Your task to perform on an android device: Clear all items from cart on ebay.com. Add "duracell triple a" to the cart on ebay.com Image 0: 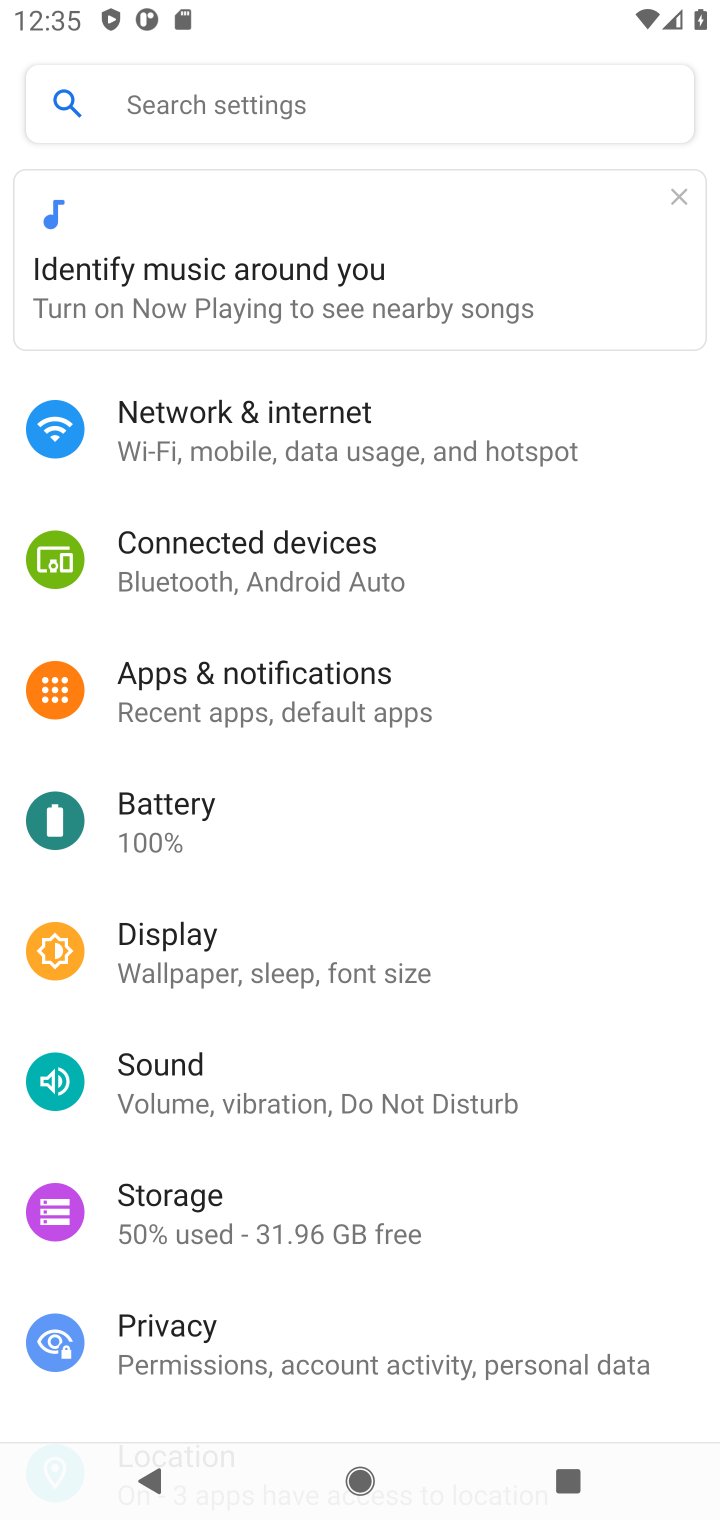
Step 0: press home button
Your task to perform on an android device: Clear all items from cart on ebay.com. Add "duracell triple a" to the cart on ebay.com Image 1: 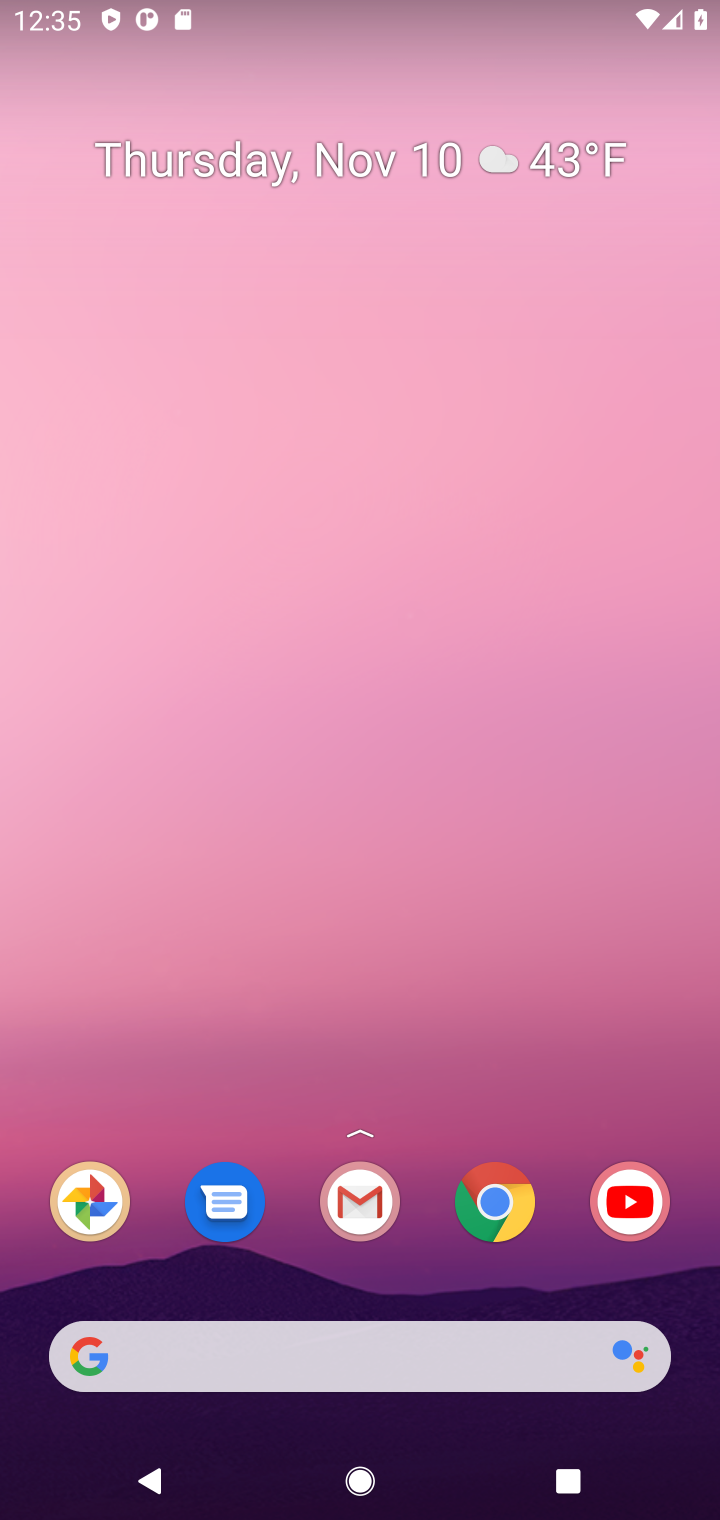
Step 1: click (491, 1203)
Your task to perform on an android device: Clear all items from cart on ebay.com. Add "duracell triple a" to the cart on ebay.com Image 2: 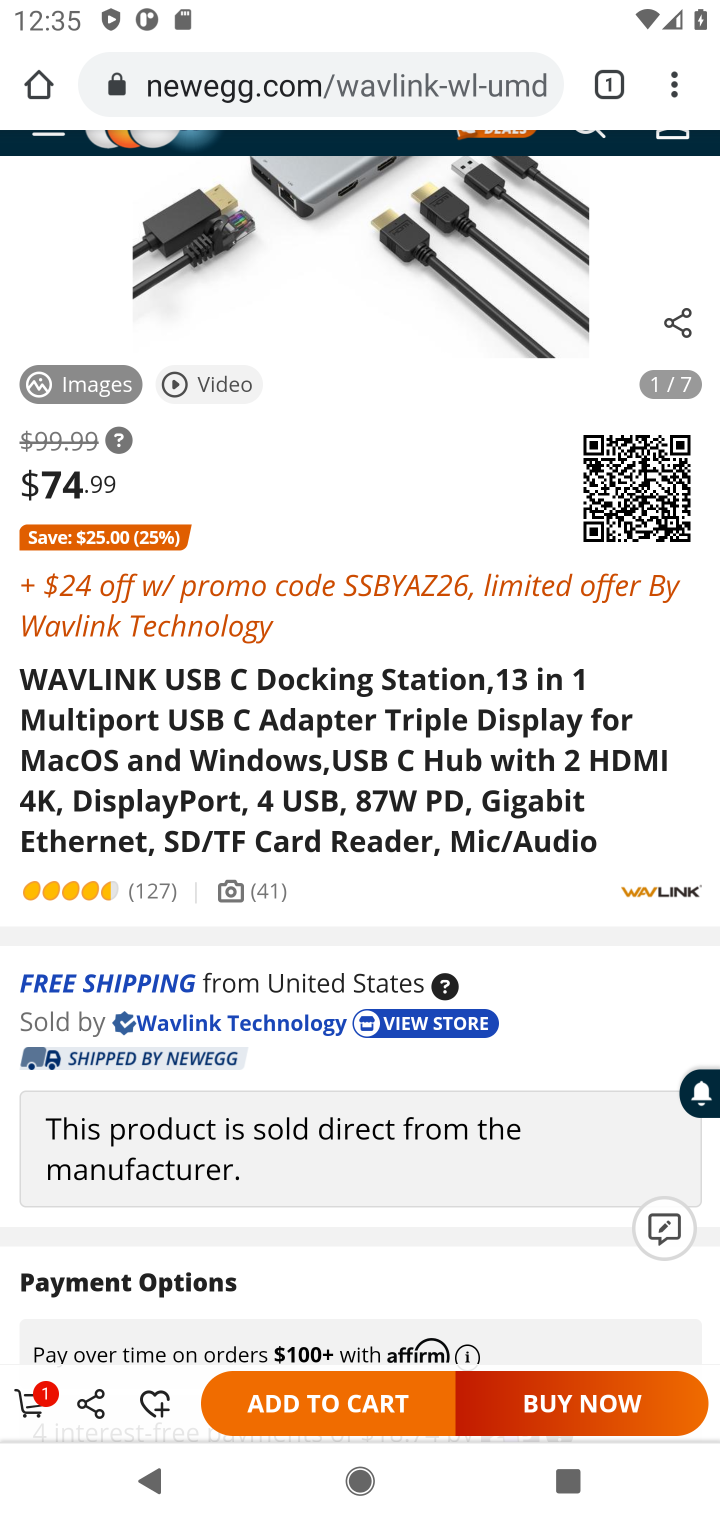
Step 2: click (361, 82)
Your task to perform on an android device: Clear all items from cart on ebay.com. Add "duracell triple a" to the cart on ebay.com Image 3: 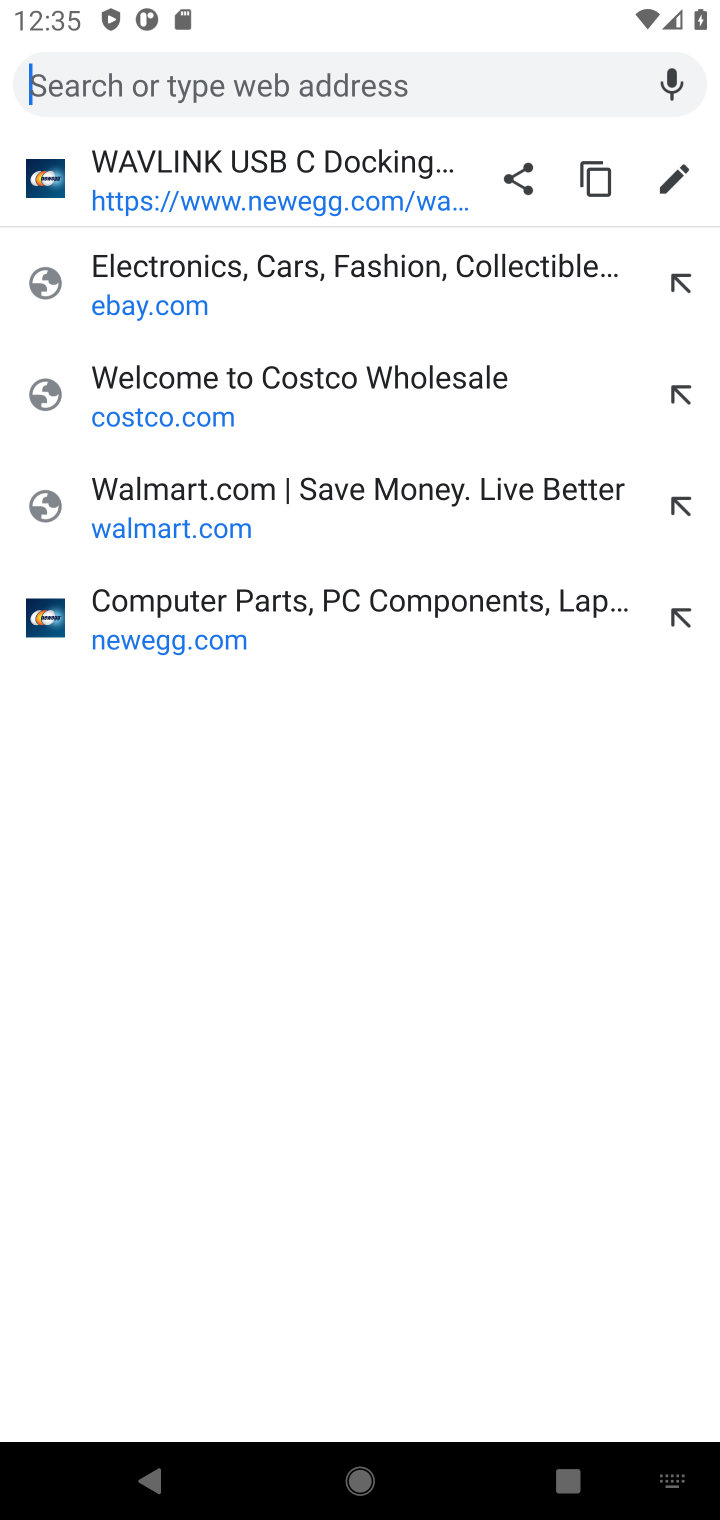
Step 3: click (493, 268)
Your task to perform on an android device: Clear all items from cart on ebay.com. Add "duracell triple a" to the cart on ebay.com Image 4: 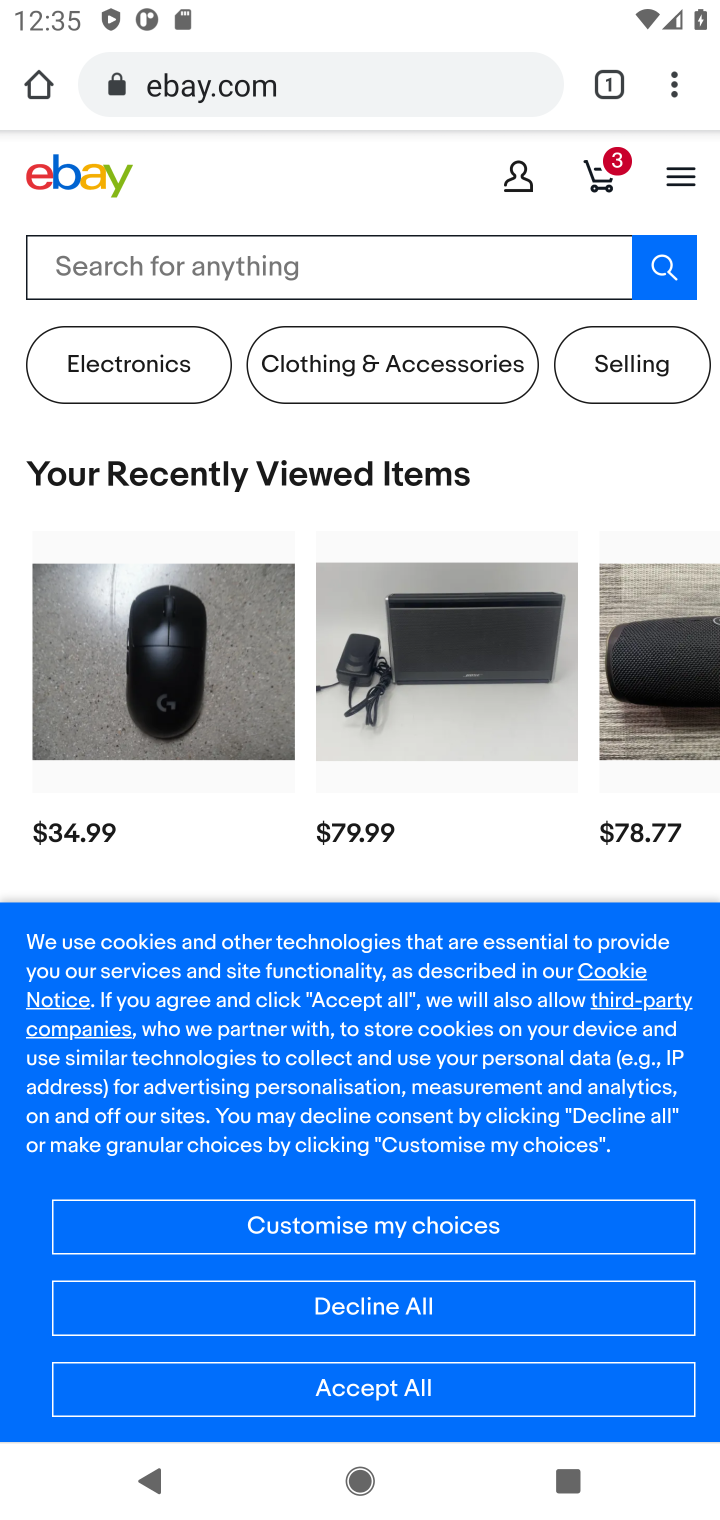
Step 4: click (597, 185)
Your task to perform on an android device: Clear all items from cart on ebay.com. Add "duracell triple a" to the cart on ebay.com Image 5: 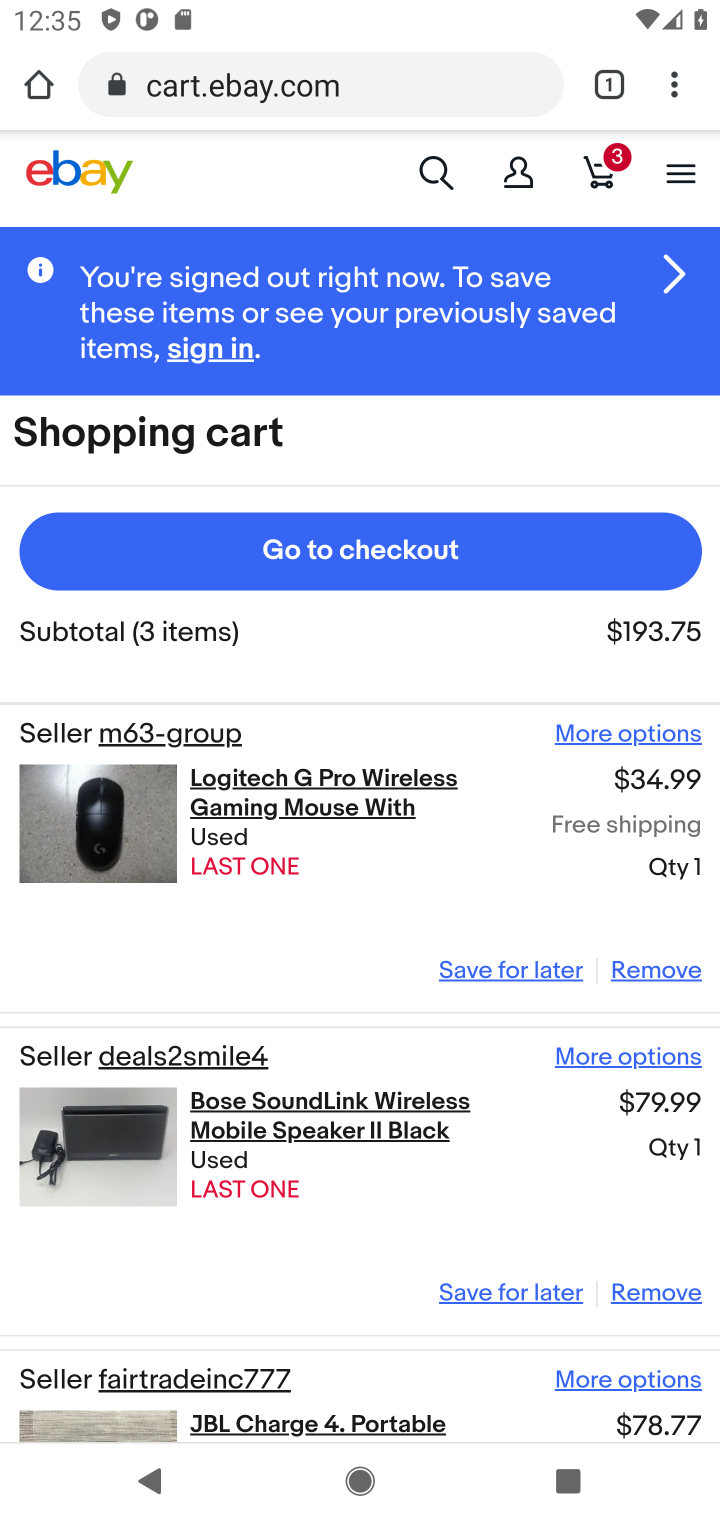
Step 5: click (658, 961)
Your task to perform on an android device: Clear all items from cart on ebay.com. Add "duracell triple a" to the cart on ebay.com Image 6: 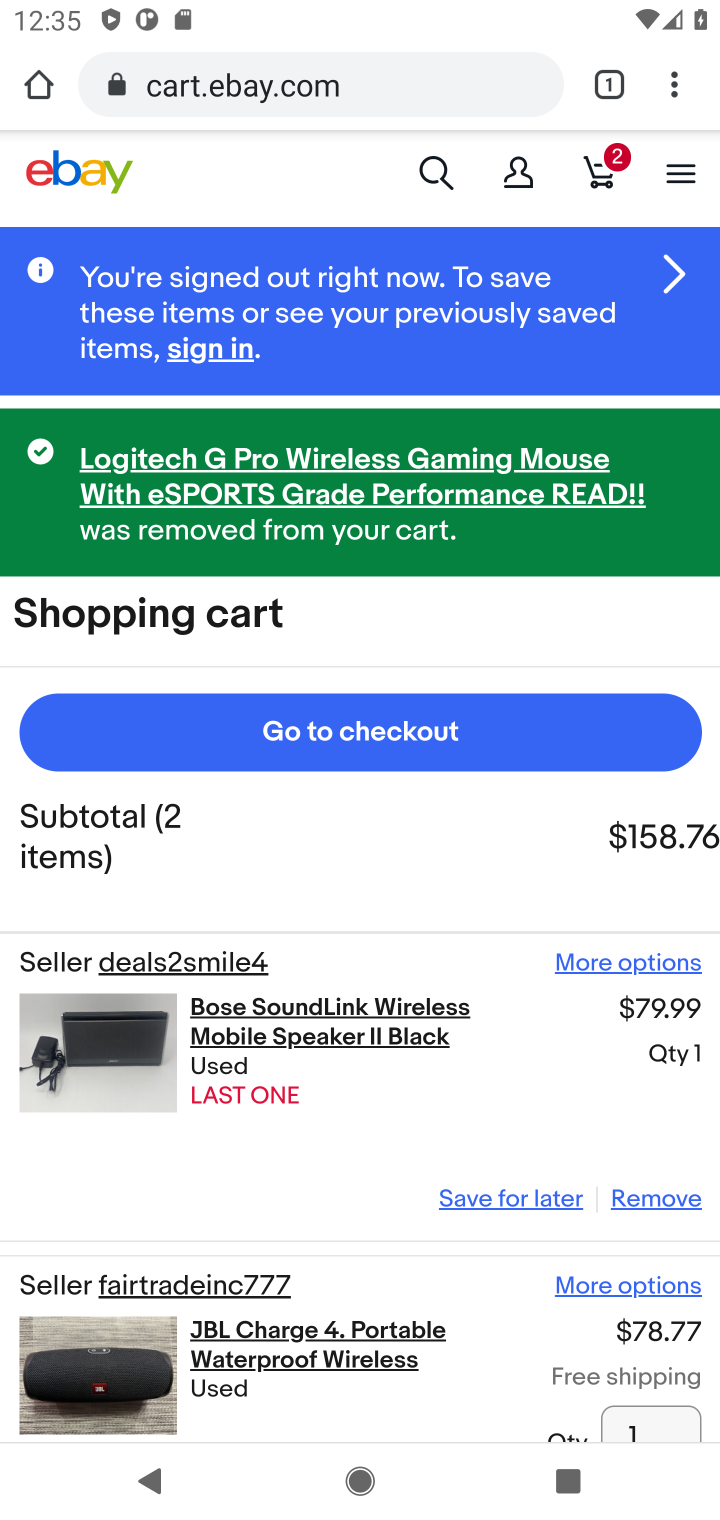
Step 6: click (656, 1199)
Your task to perform on an android device: Clear all items from cart on ebay.com. Add "duracell triple a" to the cart on ebay.com Image 7: 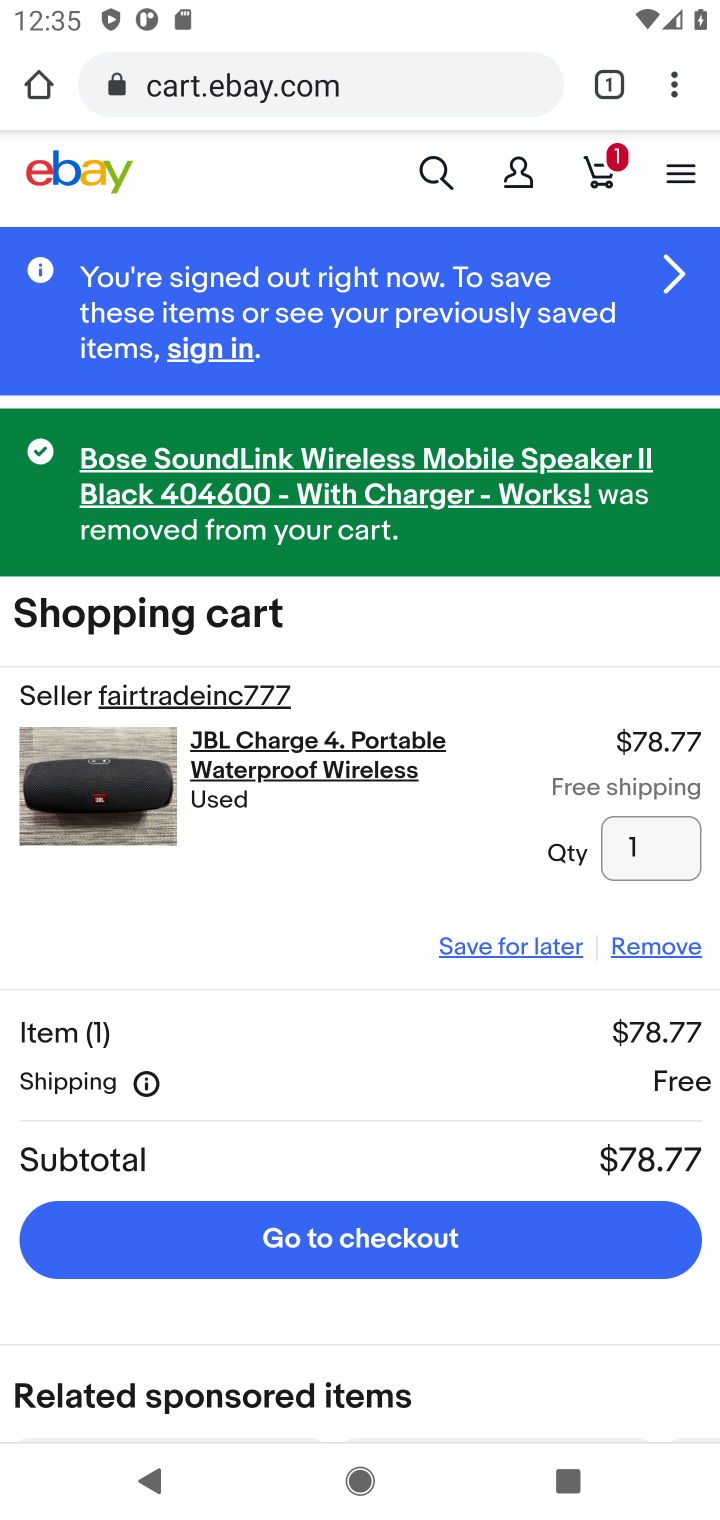
Step 7: click (656, 941)
Your task to perform on an android device: Clear all items from cart on ebay.com. Add "duracell triple a" to the cart on ebay.com Image 8: 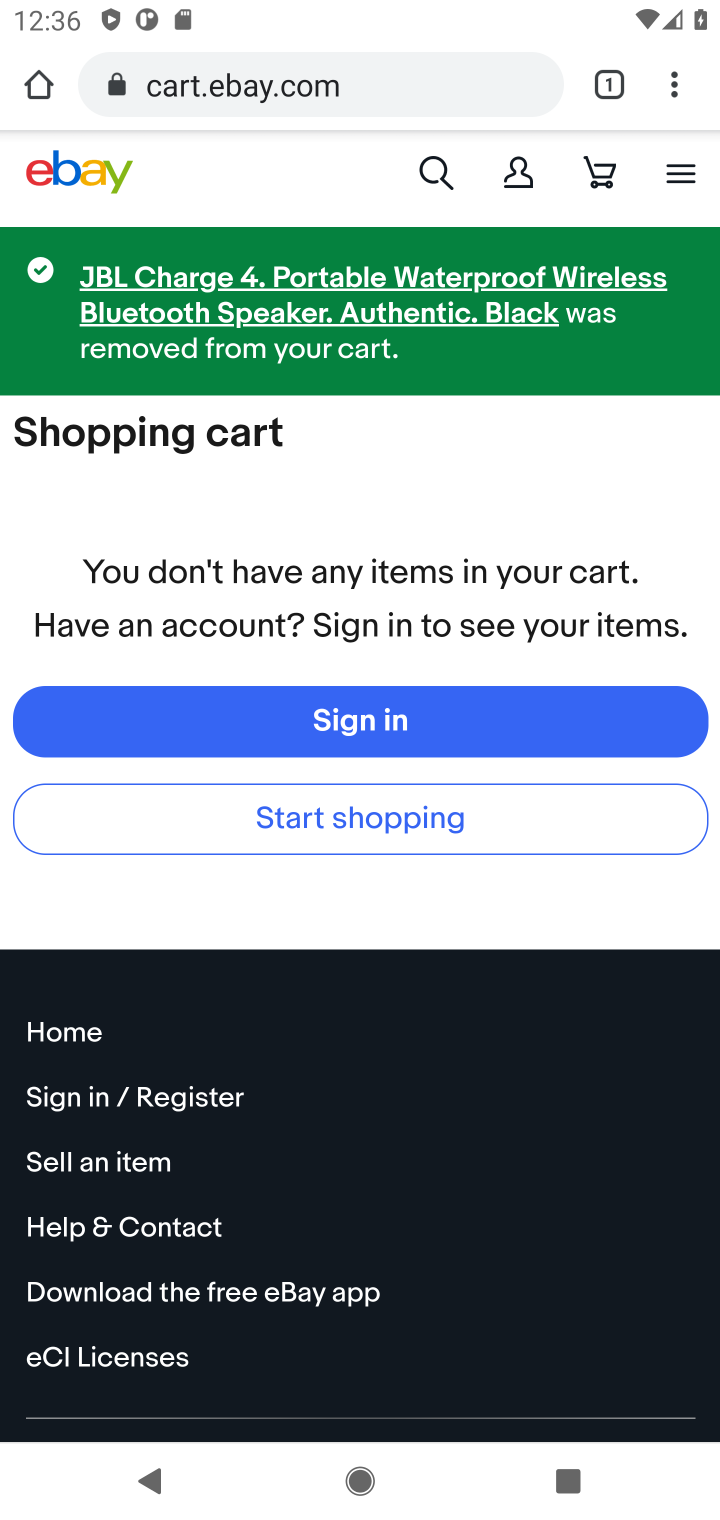
Step 8: click (422, 176)
Your task to perform on an android device: Clear all items from cart on ebay.com. Add "duracell triple a" to the cart on ebay.com Image 9: 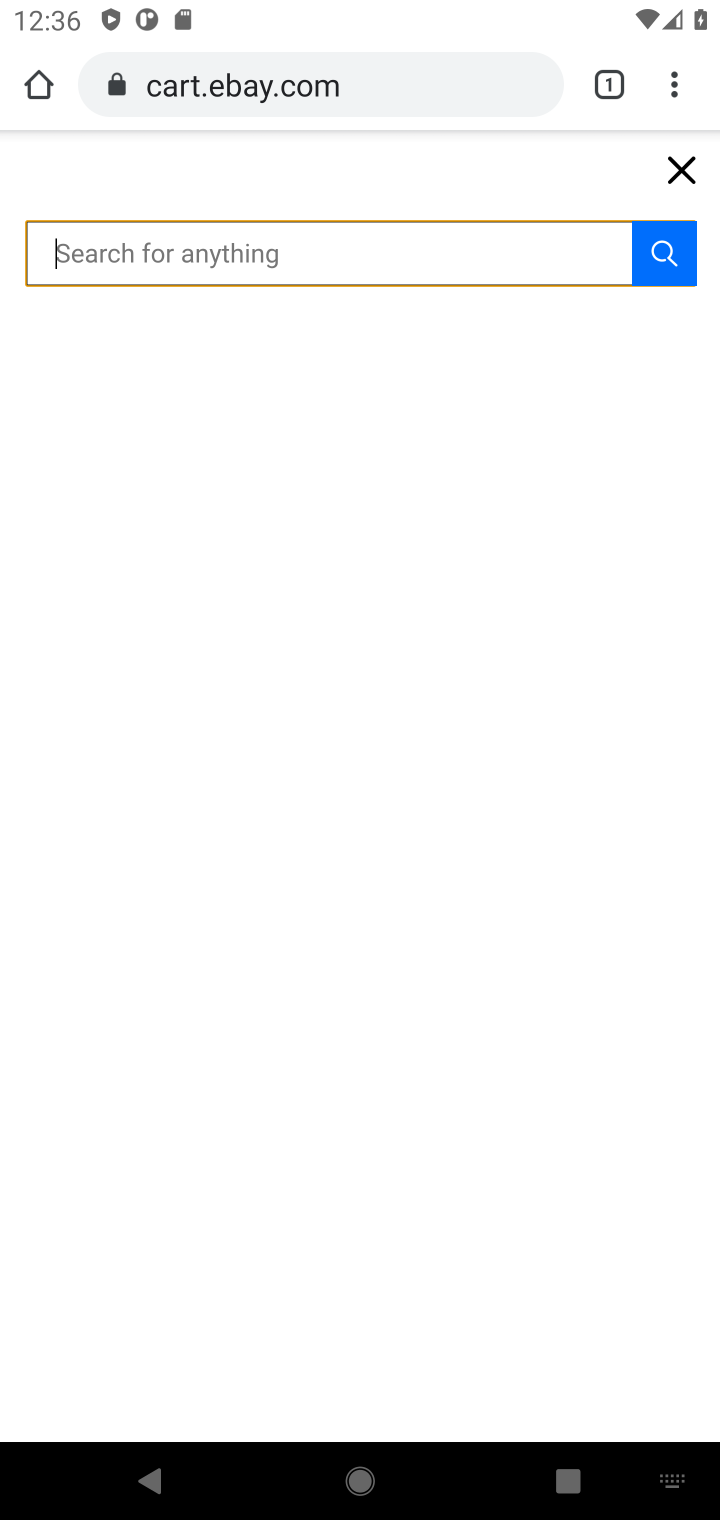
Step 9: type "duracell triple a"
Your task to perform on an android device: Clear all items from cart on ebay.com. Add "duracell triple a" to the cart on ebay.com Image 10: 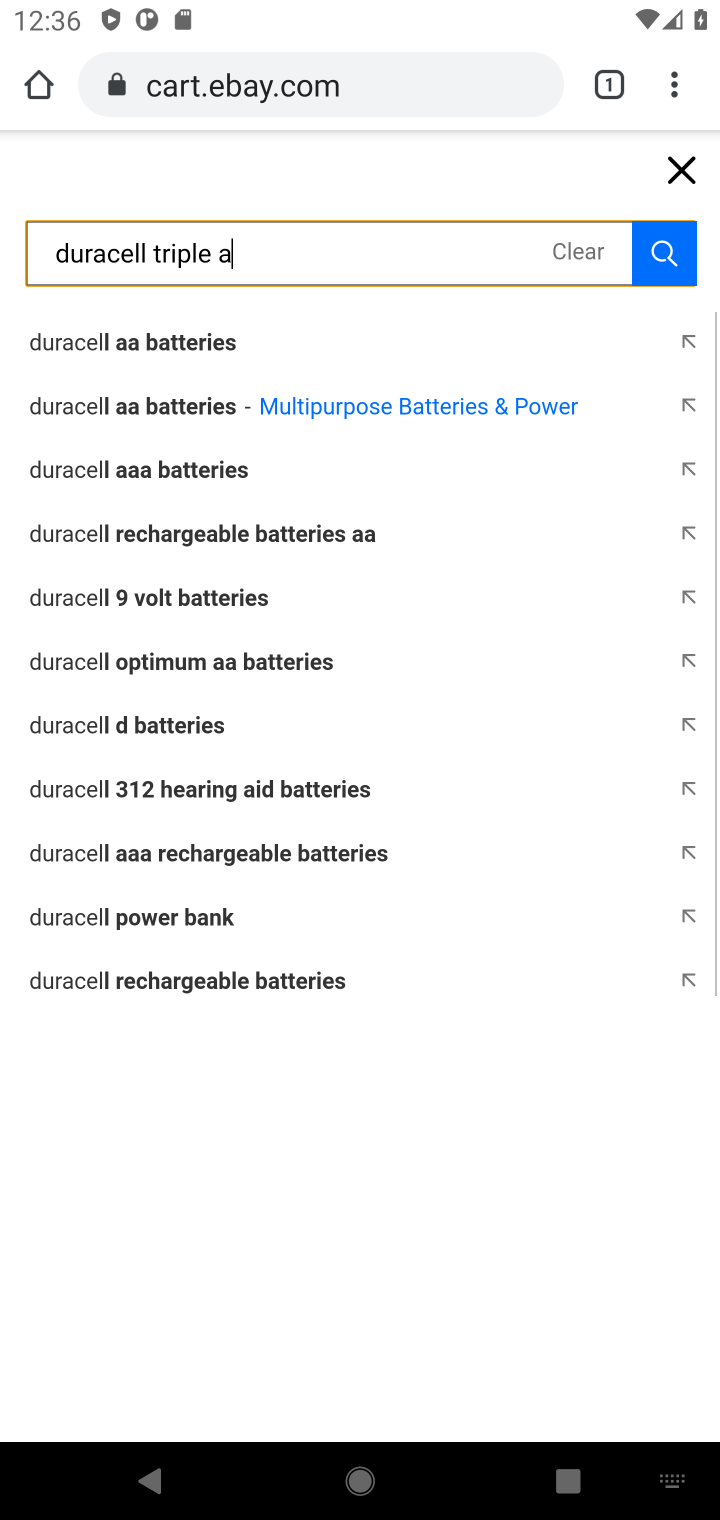
Step 10: press enter
Your task to perform on an android device: Clear all items from cart on ebay.com. Add "duracell triple a" to the cart on ebay.com Image 11: 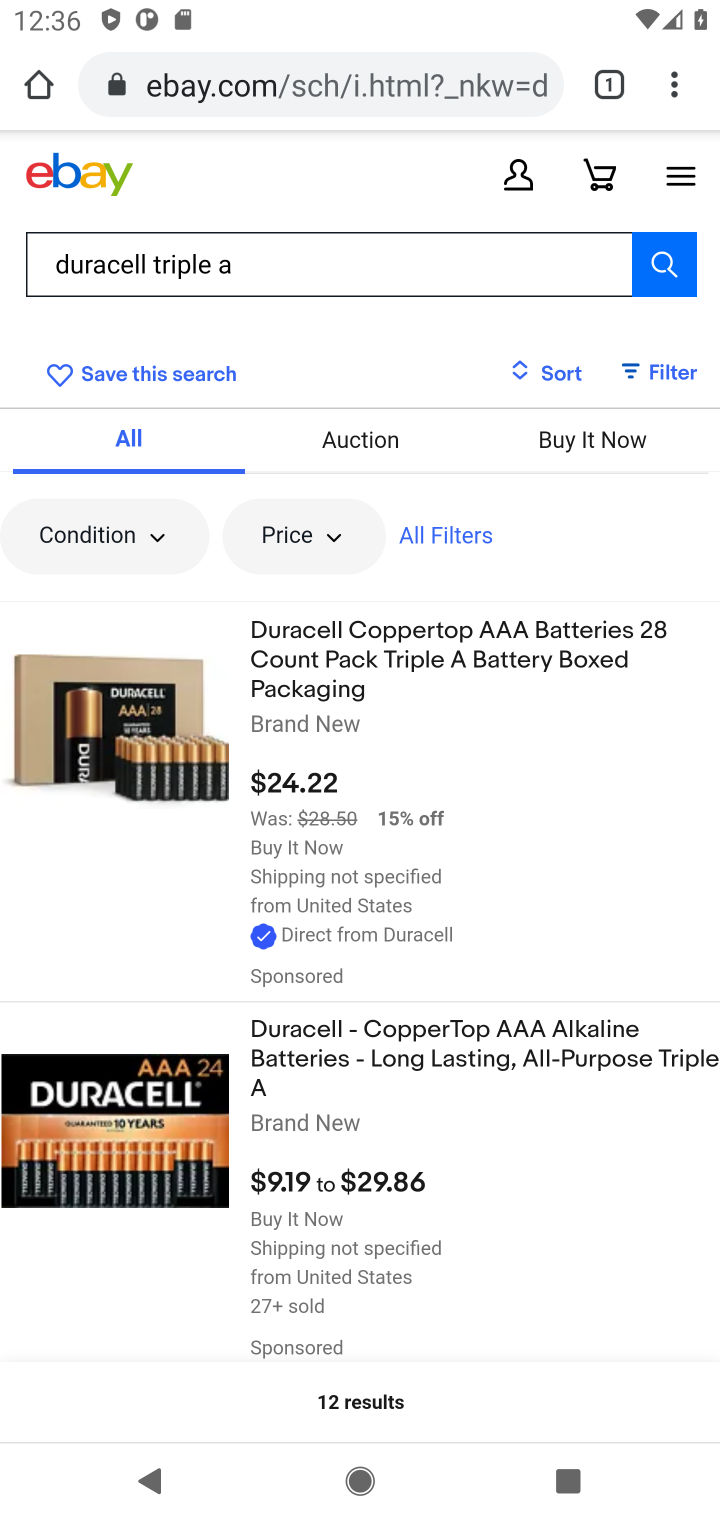
Step 11: click (102, 689)
Your task to perform on an android device: Clear all items from cart on ebay.com. Add "duracell triple a" to the cart on ebay.com Image 12: 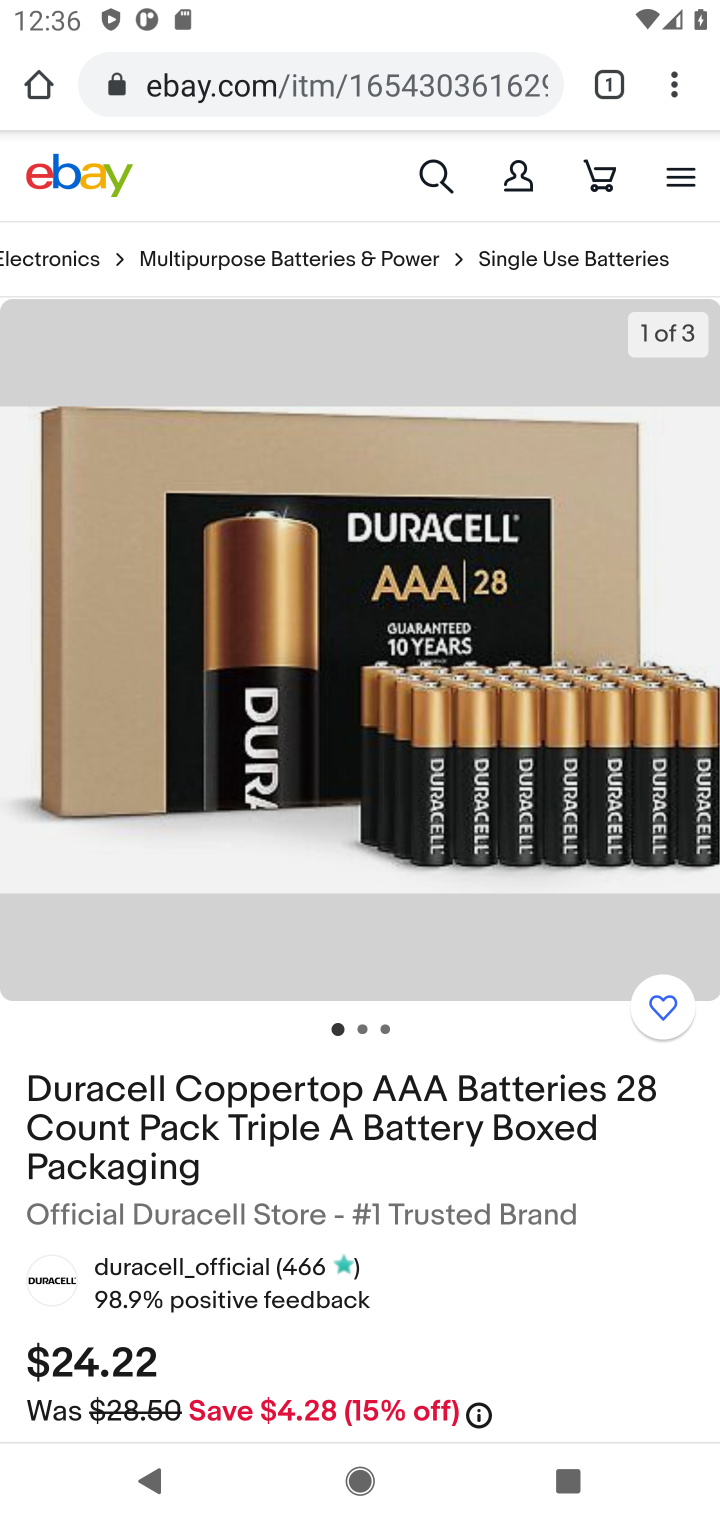
Step 12: drag from (635, 1105) to (561, 691)
Your task to perform on an android device: Clear all items from cart on ebay.com. Add "duracell triple a" to the cart on ebay.com Image 13: 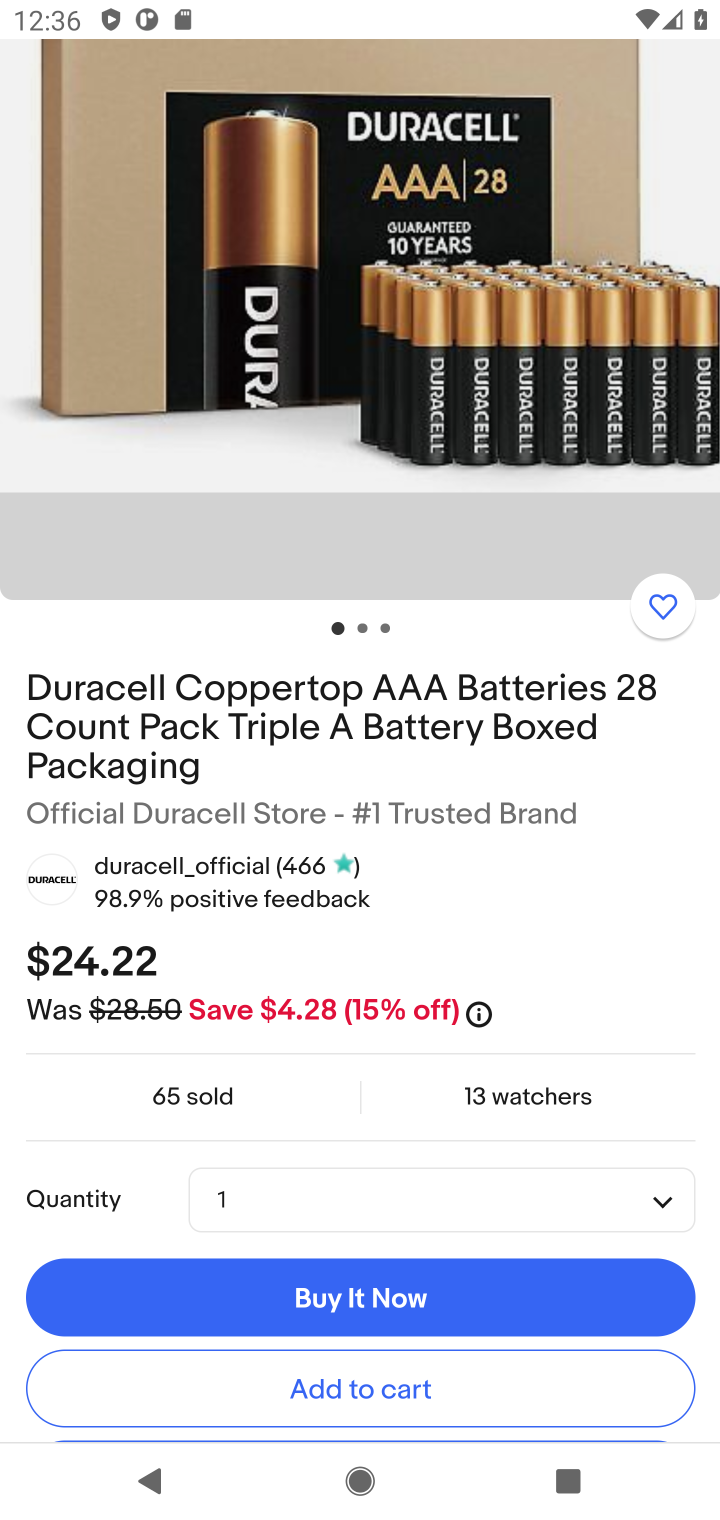
Step 13: click (394, 1380)
Your task to perform on an android device: Clear all items from cart on ebay.com. Add "duracell triple a" to the cart on ebay.com Image 14: 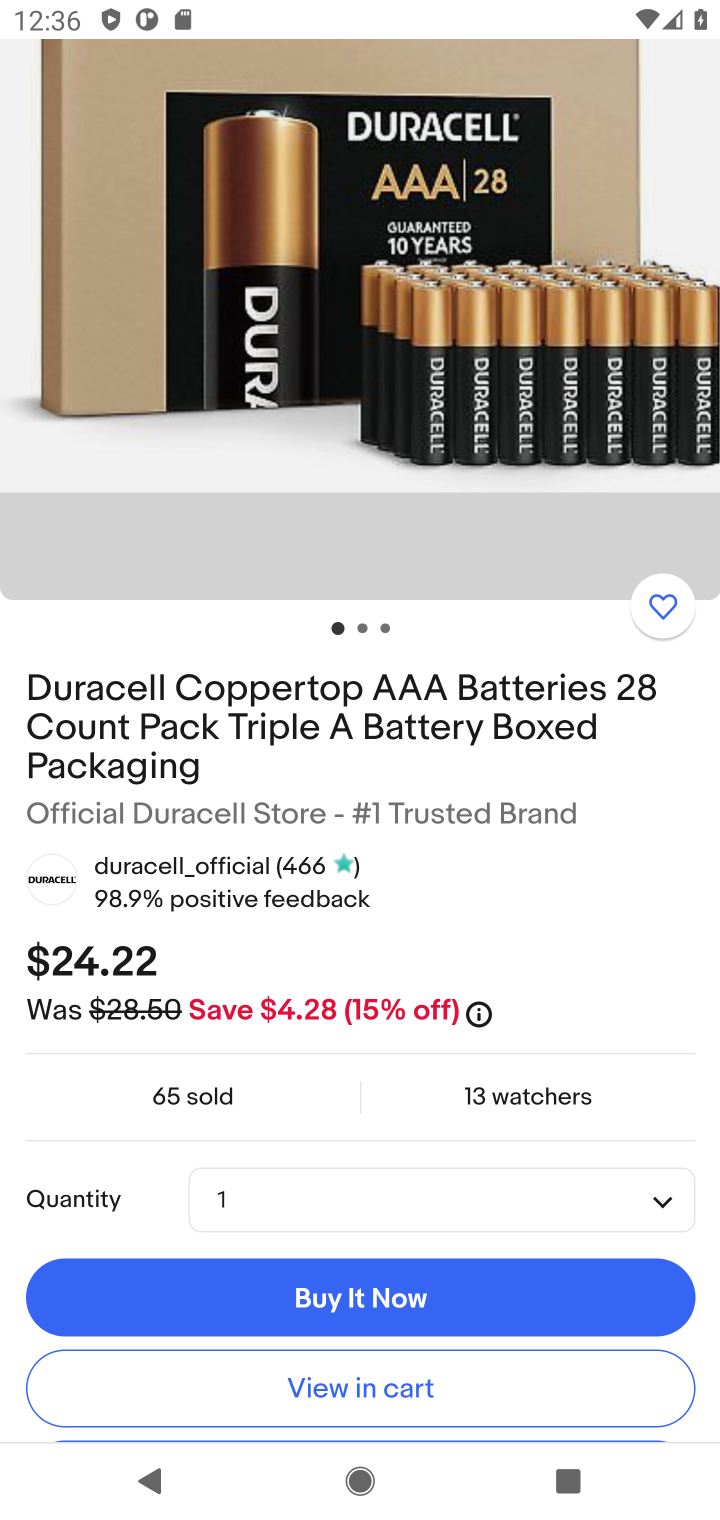
Step 14: task complete